Your task to perform on an android device: Open battery settings Image 0: 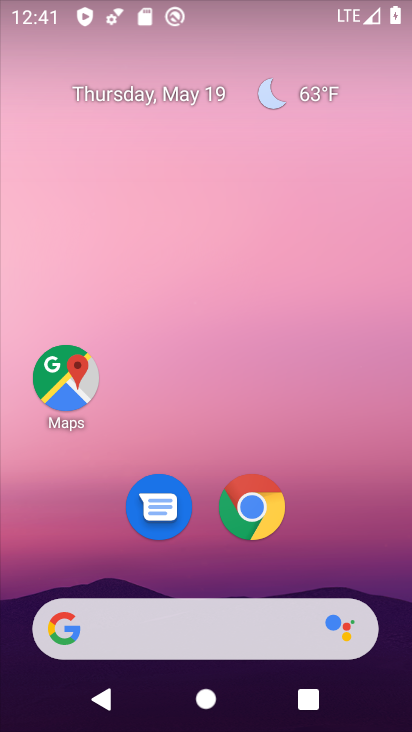
Step 0: drag from (195, 597) to (227, 267)
Your task to perform on an android device: Open battery settings Image 1: 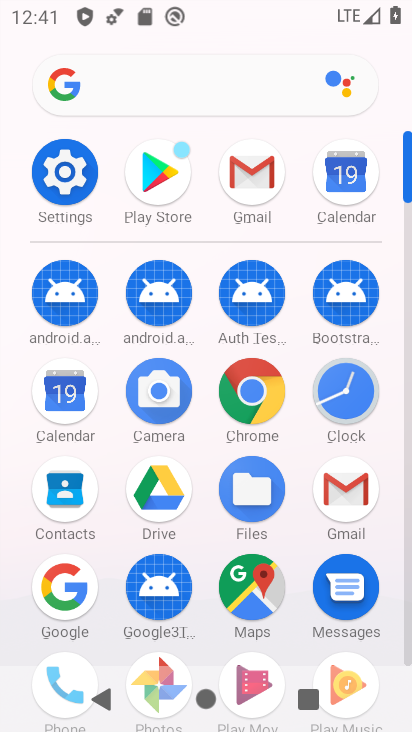
Step 1: click (71, 169)
Your task to perform on an android device: Open battery settings Image 2: 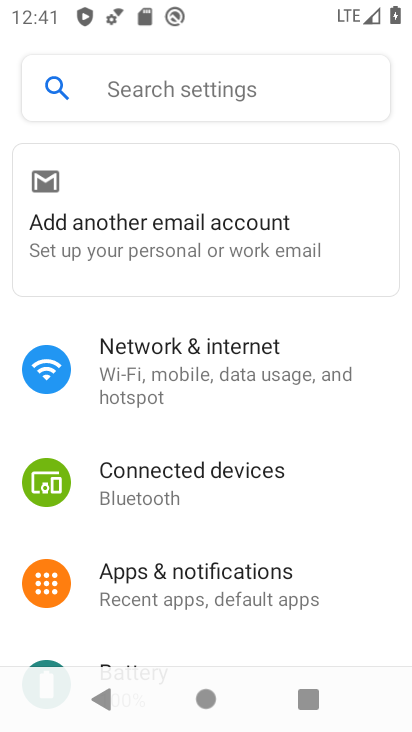
Step 2: drag from (142, 649) to (188, 283)
Your task to perform on an android device: Open battery settings Image 3: 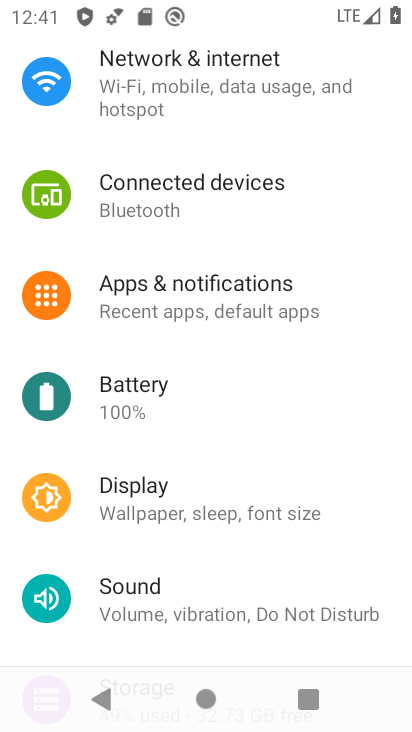
Step 3: click (139, 389)
Your task to perform on an android device: Open battery settings Image 4: 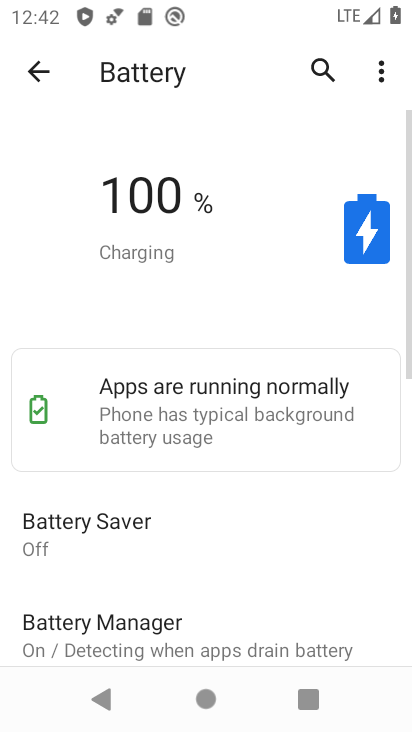
Step 4: task complete